Your task to perform on an android device: toggle show notifications on the lock screen Image 0: 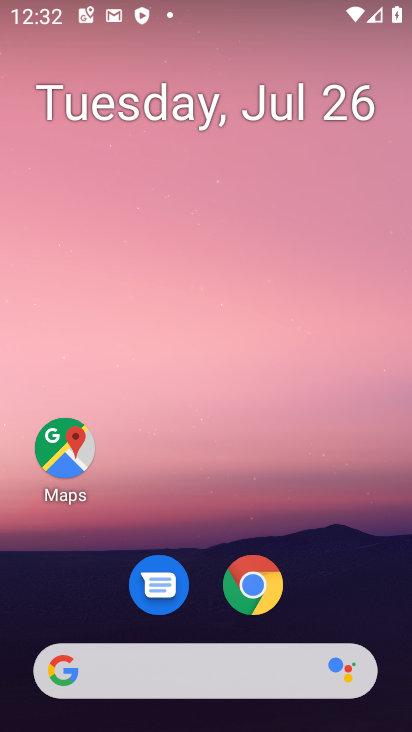
Step 0: press home button
Your task to perform on an android device: toggle show notifications on the lock screen Image 1: 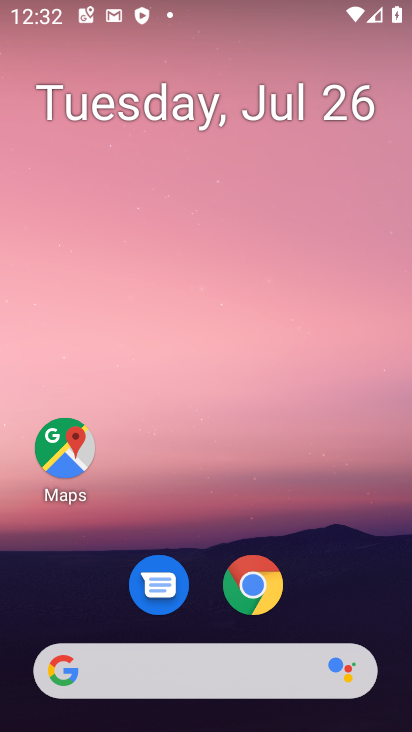
Step 1: drag from (186, 684) to (289, 108)
Your task to perform on an android device: toggle show notifications on the lock screen Image 2: 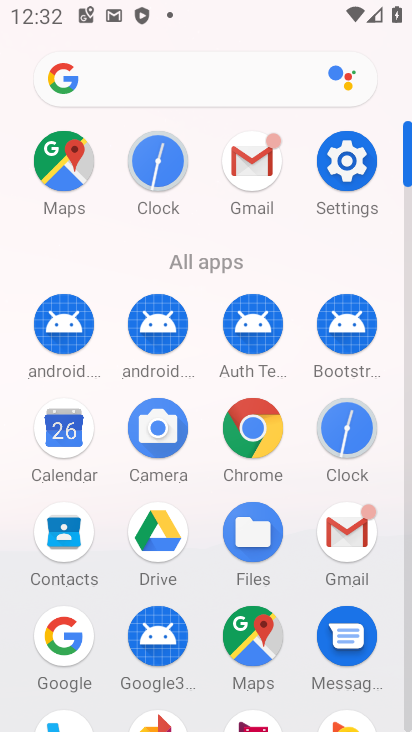
Step 2: click (342, 165)
Your task to perform on an android device: toggle show notifications on the lock screen Image 3: 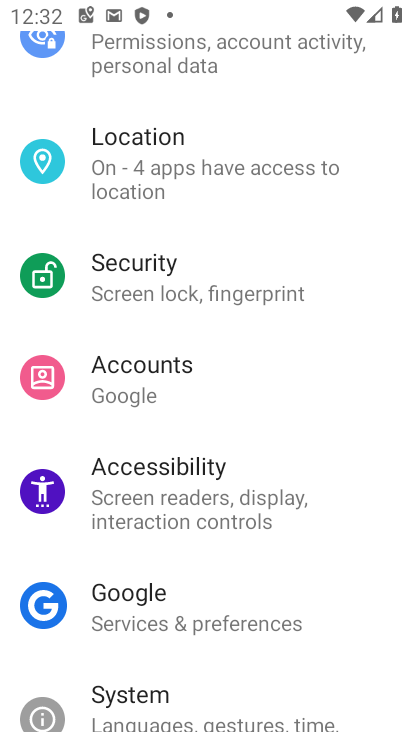
Step 3: drag from (325, 122) to (245, 596)
Your task to perform on an android device: toggle show notifications on the lock screen Image 4: 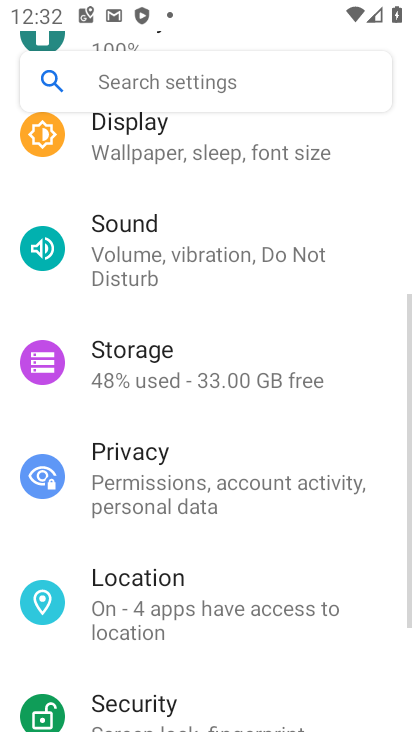
Step 4: drag from (159, 110) to (199, 540)
Your task to perform on an android device: toggle show notifications on the lock screen Image 5: 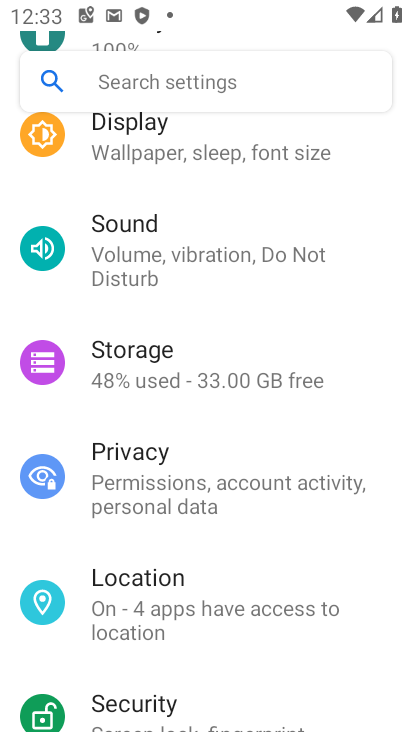
Step 5: drag from (235, 162) to (248, 646)
Your task to perform on an android device: toggle show notifications on the lock screen Image 6: 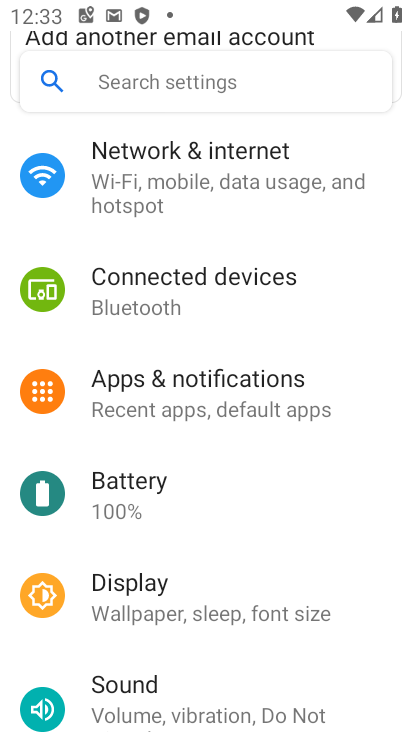
Step 6: click (229, 384)
Your task to perform on an android device: toggle show notifications on the lock screen Image 7: 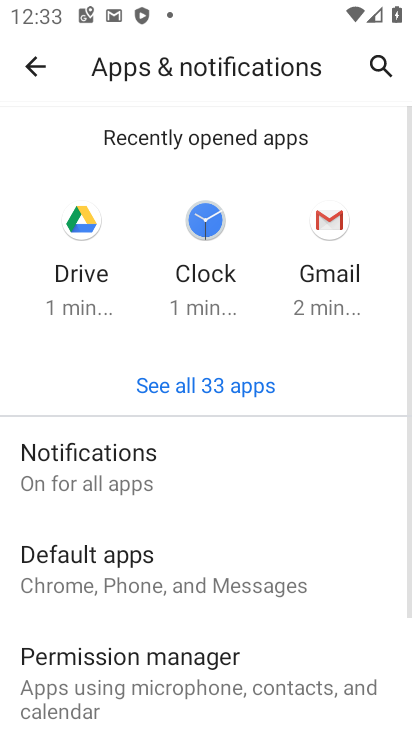
Step 7: click (122, 464)
Your task to perform on an android device: toggle show notifications on the lock screen Image 8: 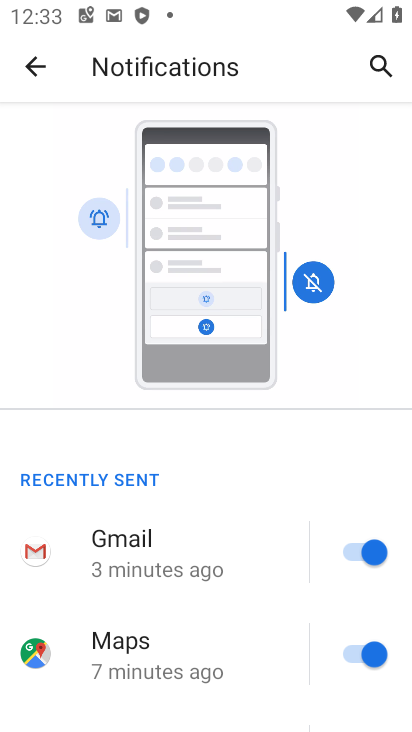
Step 8: drag from (241, 645) to (324, 177)
Your task to perform on an android device: toggle show notifications on the lock screen Image 9: 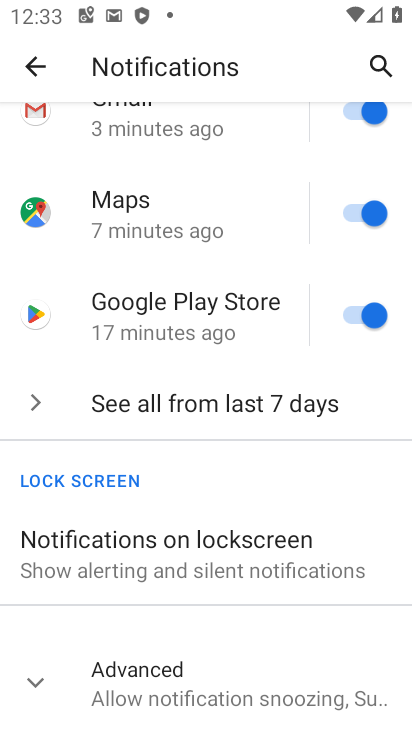
Step 9: click (190, 549)
Your task to perform on an android device: toggle show notifications on the lock screen Image 10: 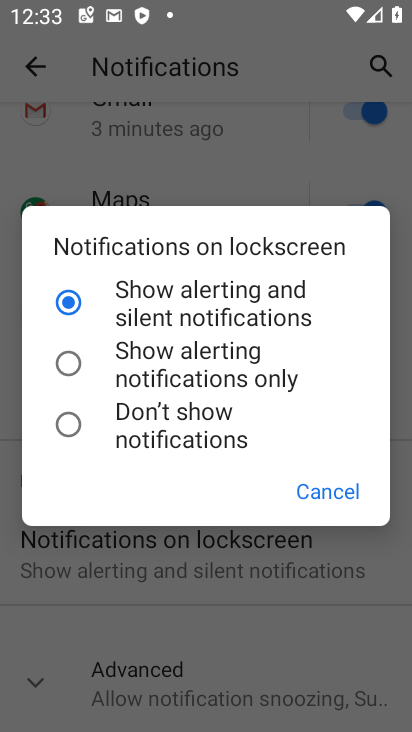
Step 10: click (72, 426)
Your task to perform on an android device: toggle show notifications on the lock screen Image 11: 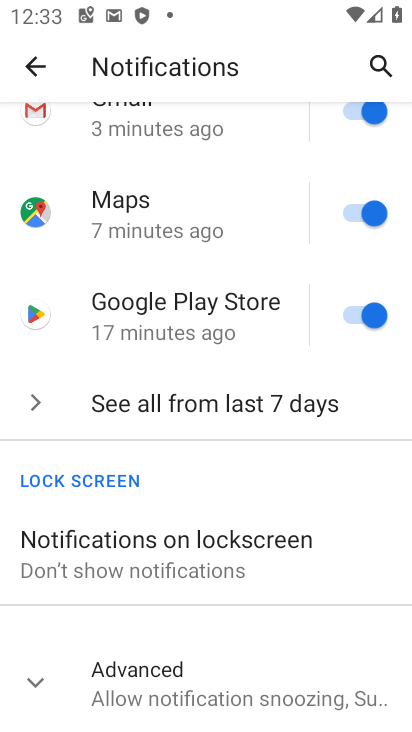
Step 11: task complete